Your task to perform on an android device: turn on the 12-hour format for clock Image 0: 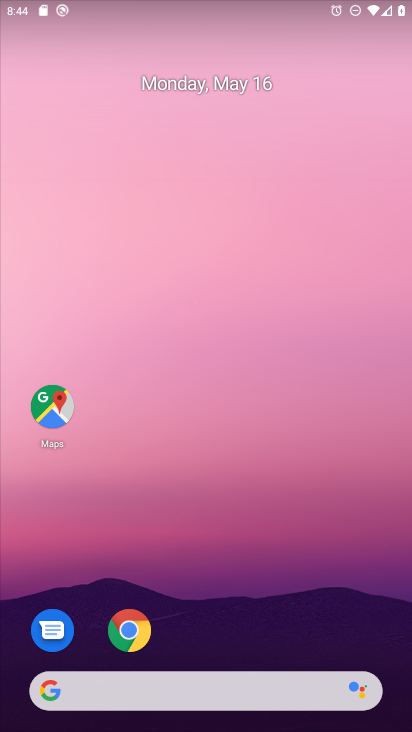
Step 0: drag from (290, 489) to (329, 145)
Your task to perform on an android device: turn on the 12-hour format for clock Image 1: 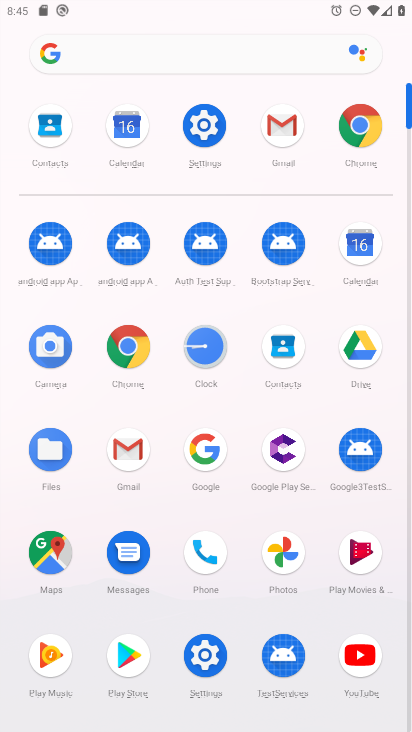
Step 1: click (200, 351)
Your task to perform on an android device: turn on the 12-hour format for clock Image 2: 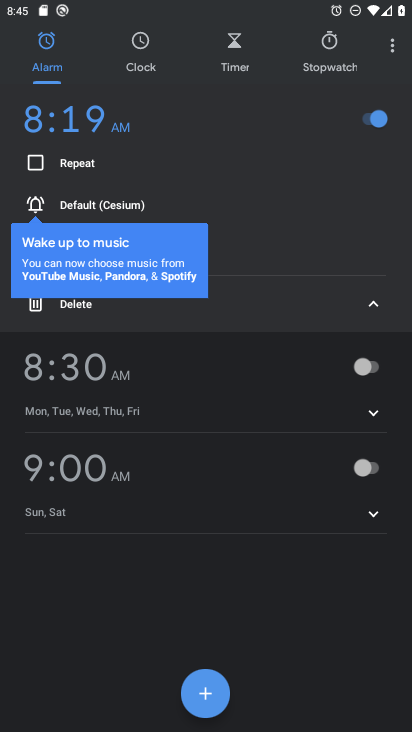
Step 2: click (374, 47)
Your task to perform on an android device: turn on the 12-hour format for clock Image 3: 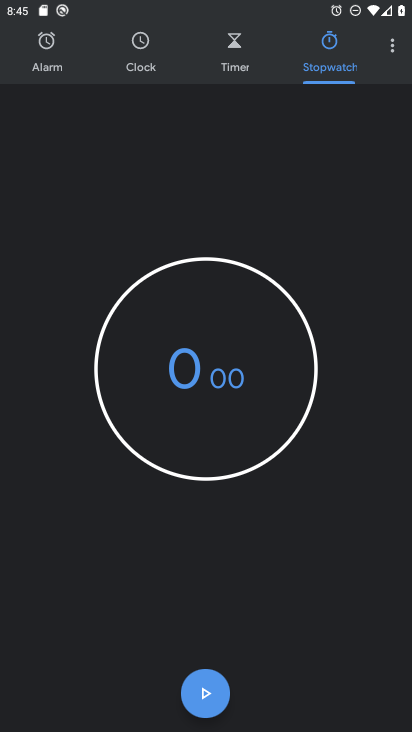
Step 3: click (390, 24)
Your task to perform on an android device: turn on the 12-hour format for clock Image 4: 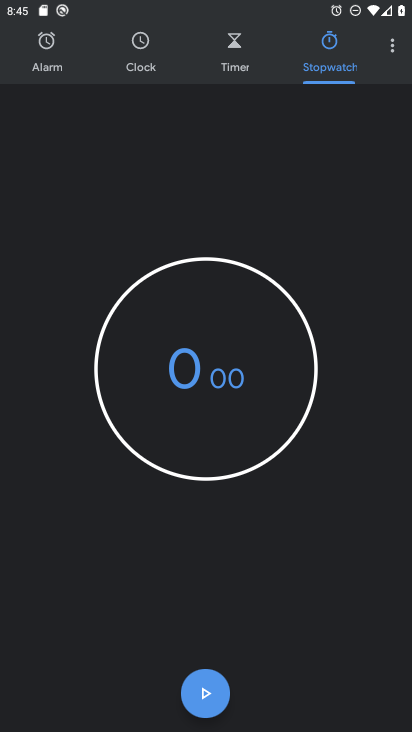
Step 4: click (151, 51)
Your task to perform on an android device: turn on the 12-hour format for clock Image 5: 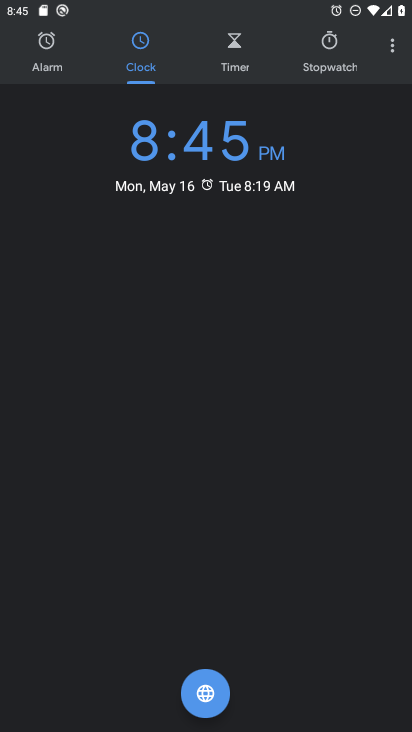
Step 5: click (224, 691)
Your task to perform on an android device: turn on the 12-hour format for clock Image 6: 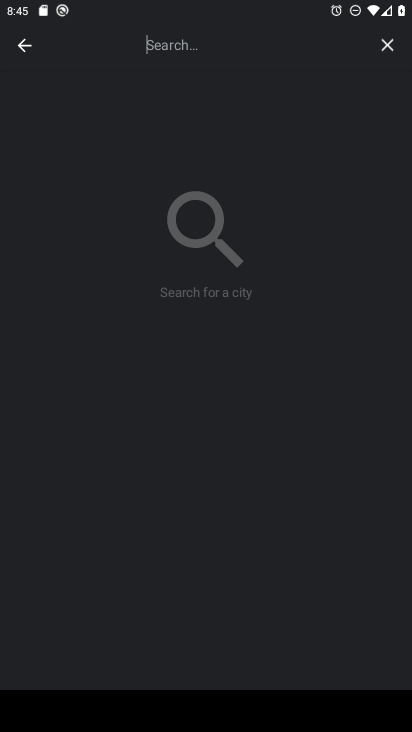
Step 6: type "12hours"
Your task to perform on an android device: turn on the 12-hour format for clock Image 7: 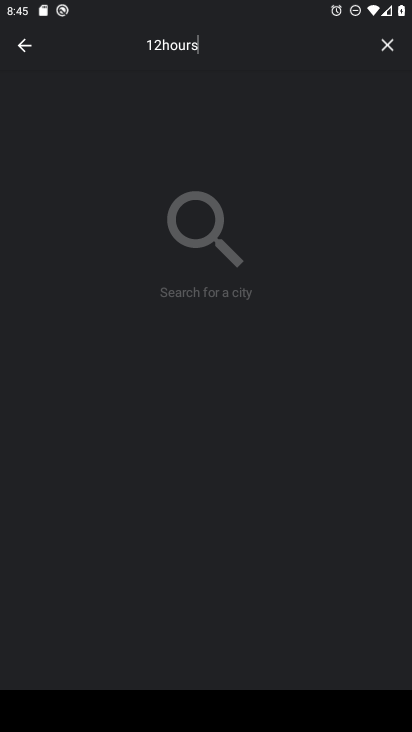
Step 7: type "format"
Your task to perform on an android device: turn on the 12-hour format for clock Image 8: 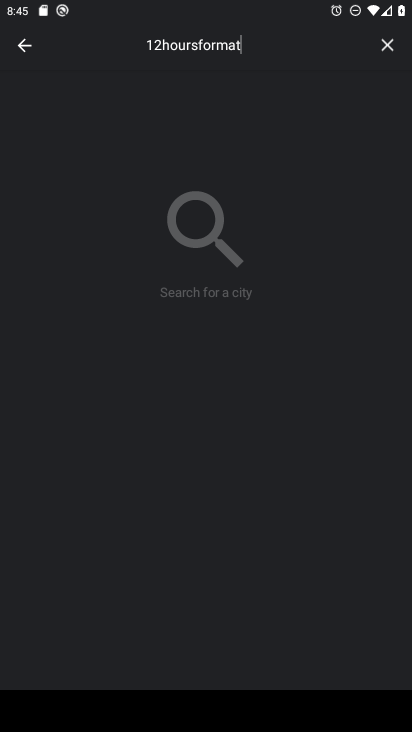
Step 8: press home button
Your task to perform on an android device: turn on the 12-hour format for clock Image 9: 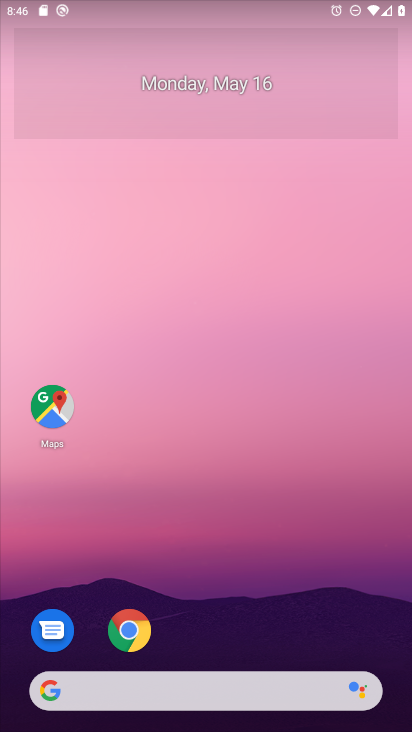
Step 9: click (123, 699)
Your task to perform on an android device: turn on the 12-hour format for clock Image 10: 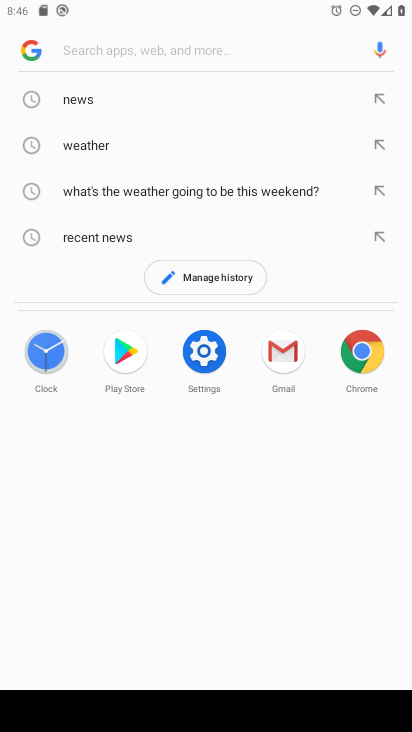
Step 10: type "12hours format"
Your task to perform on an android device: turn on the 12-hour format for clock Image 11: 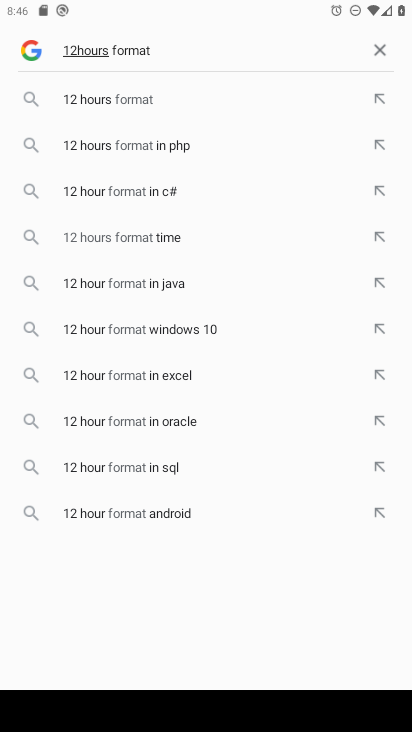
Step 11: type " "
Your task to perform on an android device: turn on the 12-hour format for clock Image 12: 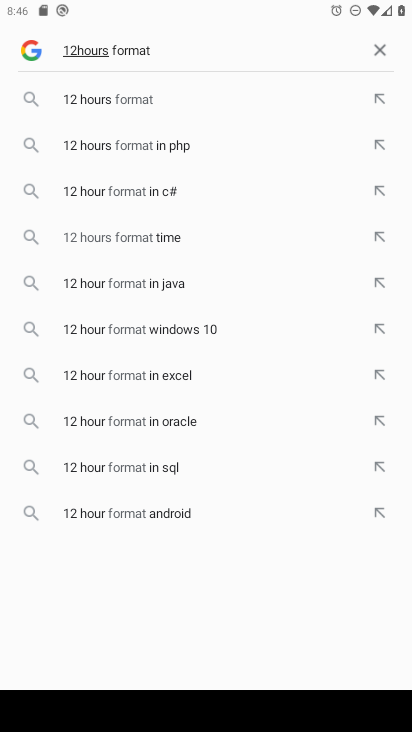
Step 12: click (358, 51)
Your task to perform on an android device: turn on the 12-hour format for clock Image 13: 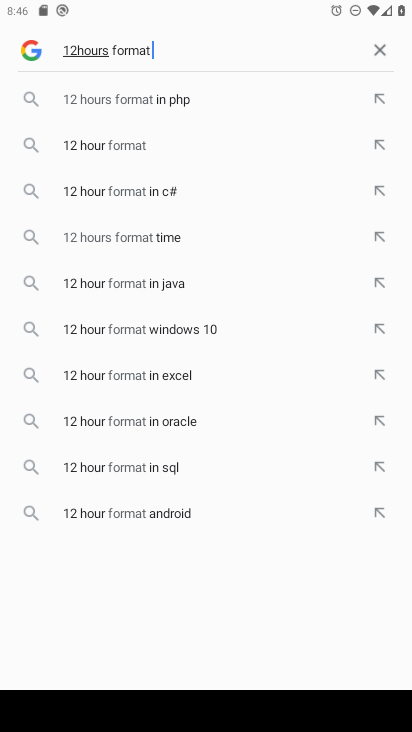
Step 13: click (382, 48)
Your task to perform on an android device: turn on the 12-hour format for clock Image 14: 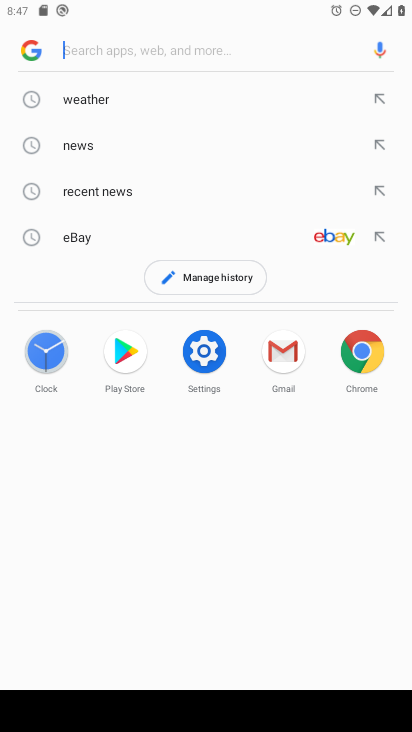
Step 14: type "12 hours format for clock"
Your task to perform on an android device: turn on the 12-hour format for clock Image 15: 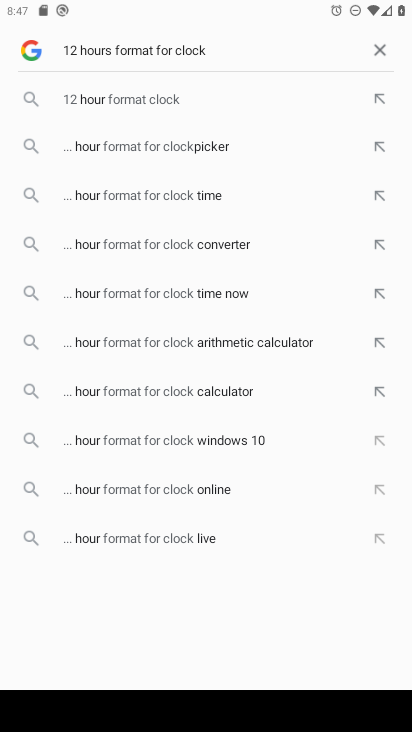
Step 15: click (122, 99)
Your task to perform on an android device: turn on the 12-hour format for clock Image 16: 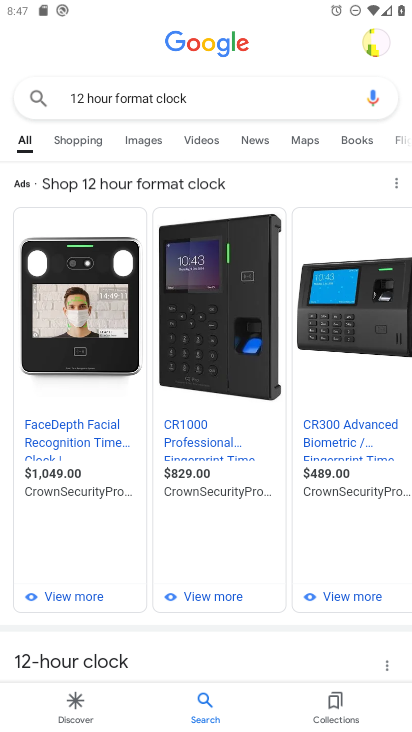
Step 16: task complete